Your task to perform on an android device: delete a single message in the gmail app Image 0: 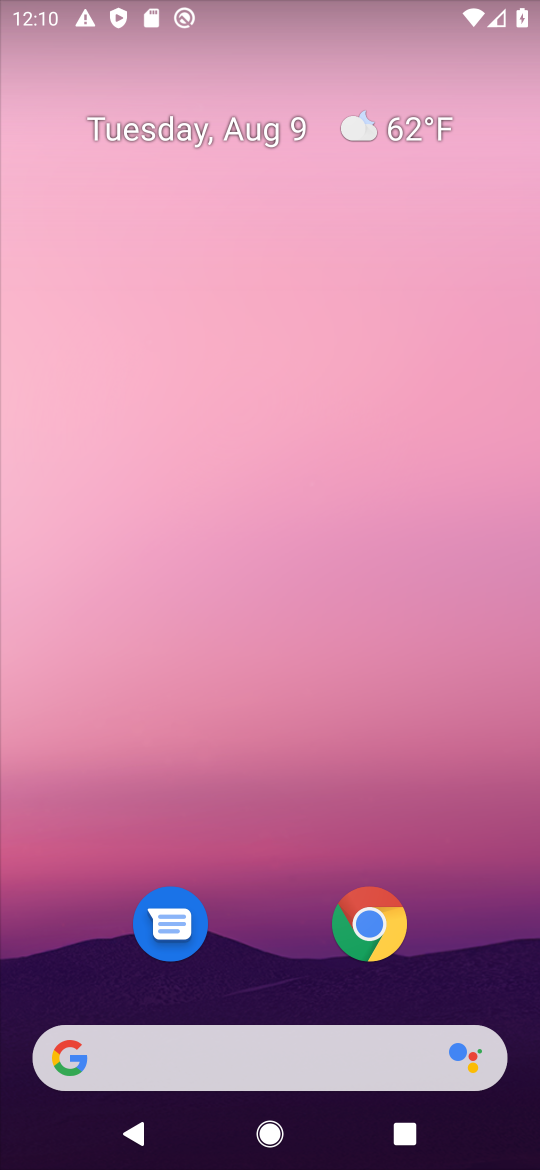
Step 0: drag from (282, 988) to (282, 152)
Your task to perform on an android device: delete a single message in the gmail app Image 1: 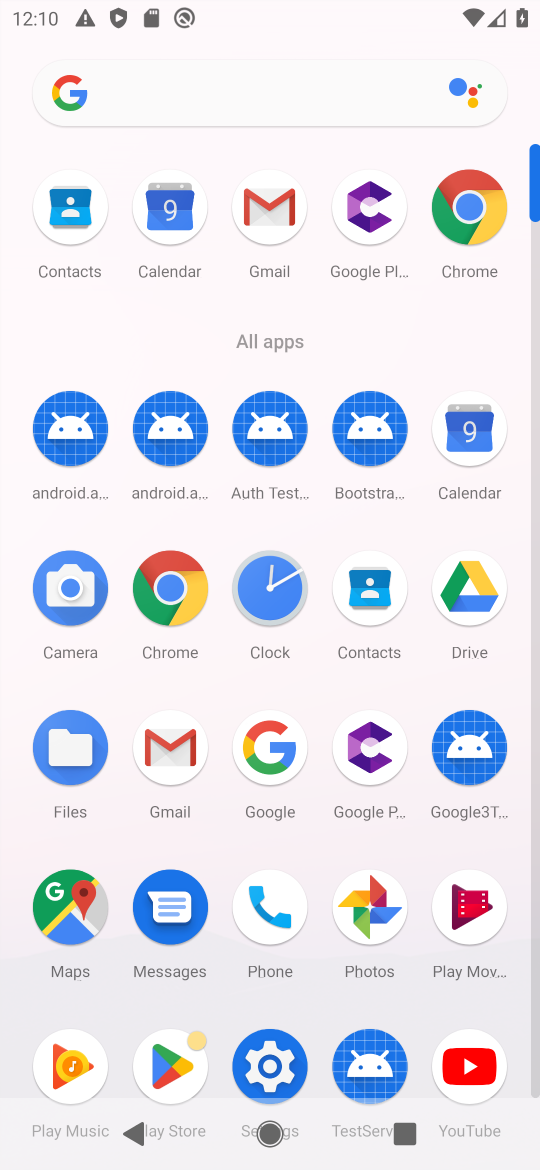
Step 1: click (181, 765)
Your task to perform on an android device: delete a single message in the gmail app Image 2: 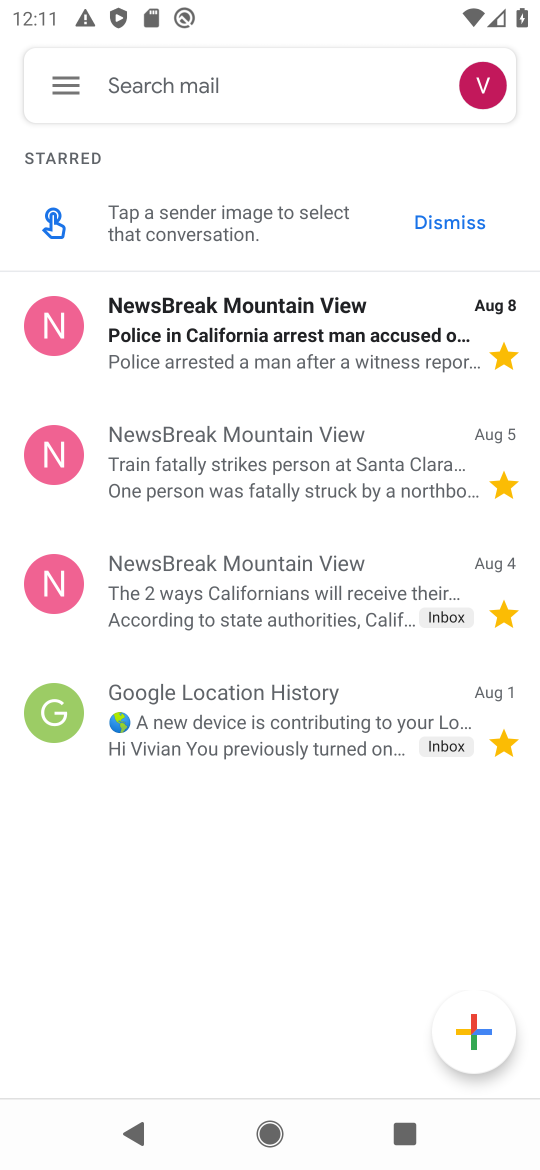
Step 2: task complete